Your task to perform on an android device: What's on my calendar tomorrow? Image 0: 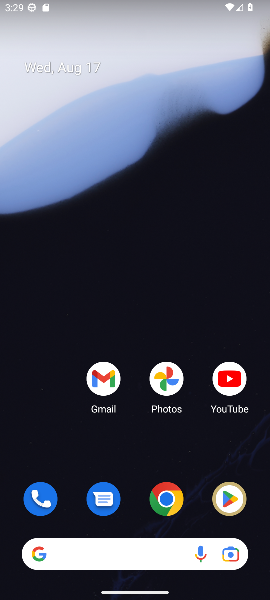
Step 0: drag from (196, 444) to (228, 49)
Your task to perform on an android device: What's on my calendar tomorrow? Image 1: 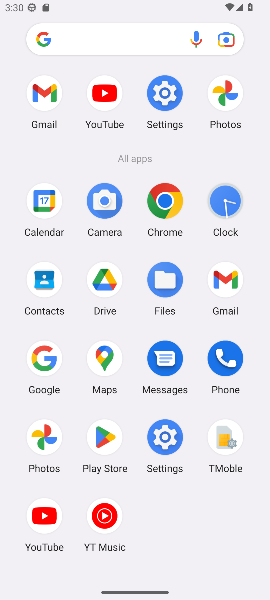
Step 1: click (45, 200)
Your task to perform on an android device: What's on my calendar tomorrow? Image 2: 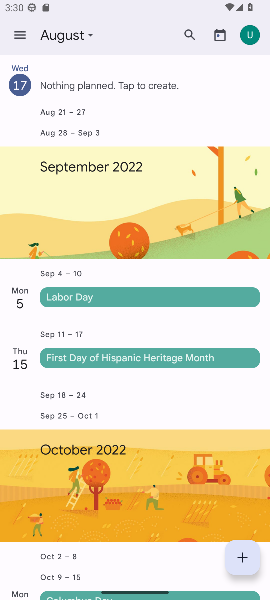
Step 2: click (82, 34)
Your task to perform on an android device: What's on my calendar tomorrow? Image 3: 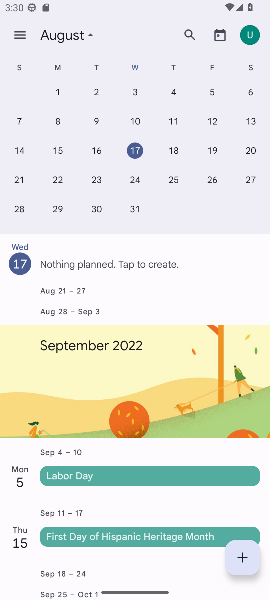
Step 3: click (179, 148)
Your task to perform on an android device: What's on my calendar tomorrow? Image 4: 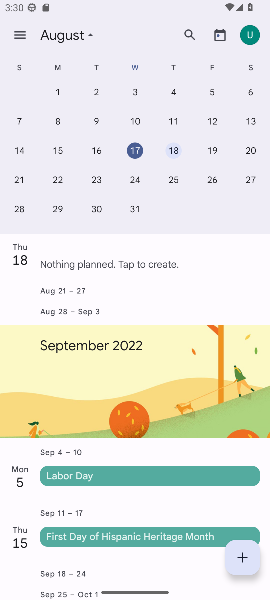
Step 4: click (178, 153)
Your task to perform on an android device: What's on my calendar tomorrow? Image 5: 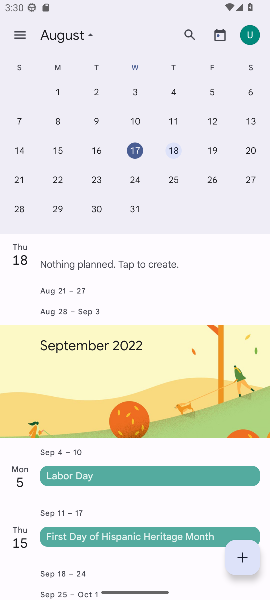
Step 5: task complete